Your task to perform on an android device: Open battery settings Image 0: 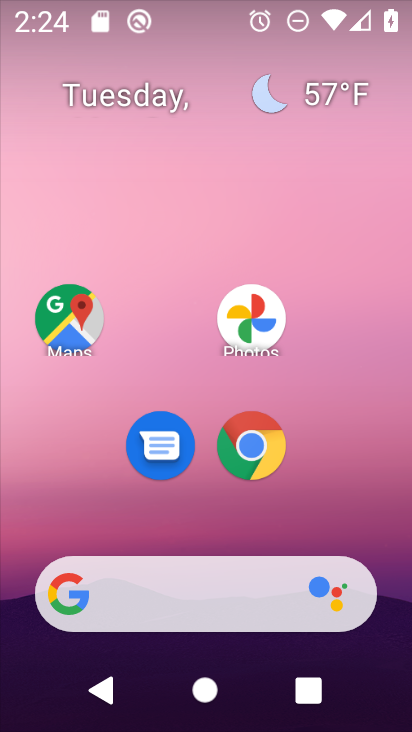
Step 0: drag from (385, 524) to (381, 240)
Your task to perform on an android device: Open battery settings Image 1: 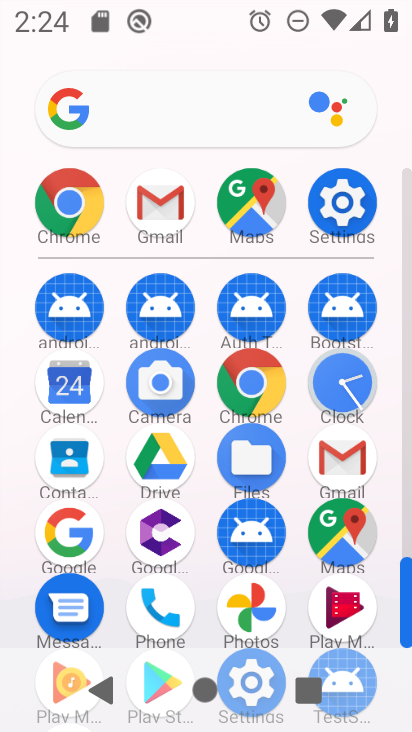
Step 1: click (353, 205)
Your task to perform on an android device: Open battery settings Image 2: 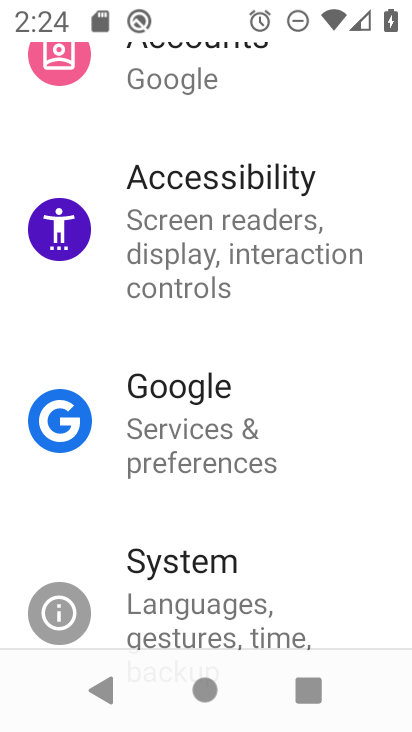
Step 2: drag from (368, 584) to (368, 394)
Your task to perform on an android device: Open battery settings Image 3: 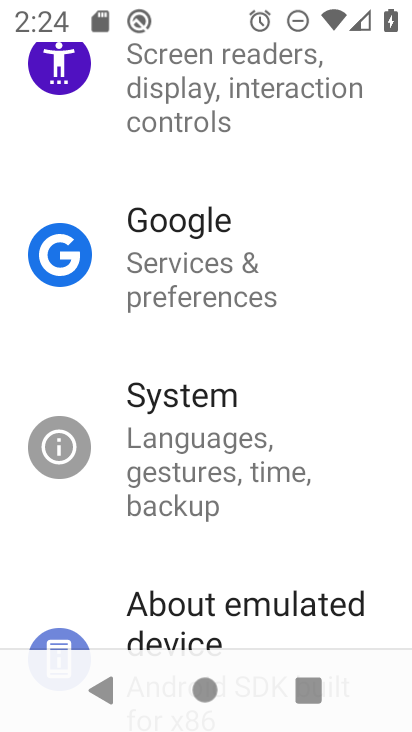
Step 3: drag from (359, 267) to (366, 448)
Your task to perform on an android device: Open battery settings Image 4: 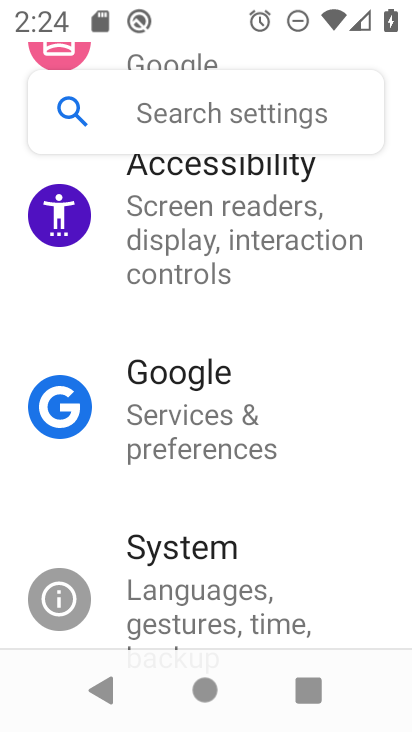
Step 4: drag from (382, 210) to (391, 377)
Your task to perform on an android device: Open battery settings Image 5: 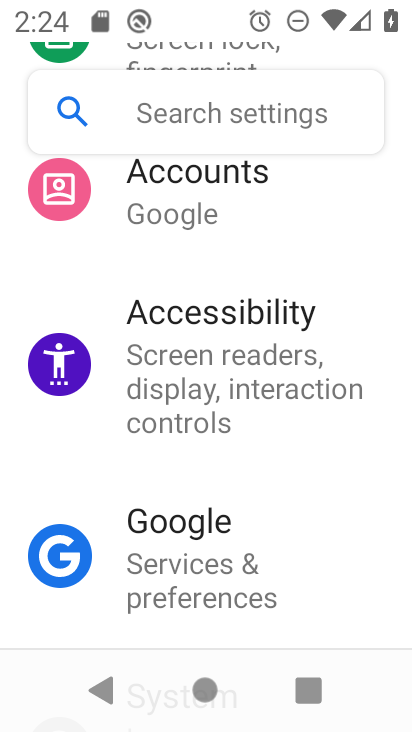
Step 5: drag from (375, 228) to (379, 417)
Your task to perform on an android device: Open battery settings Image 6: 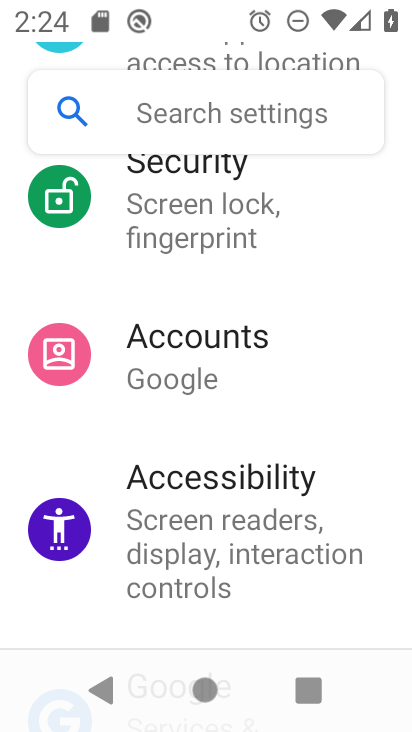
Step 6: drag from (357, 237) to (372, 419)
Your task to perform on an android device: Open battery settings Image 7: 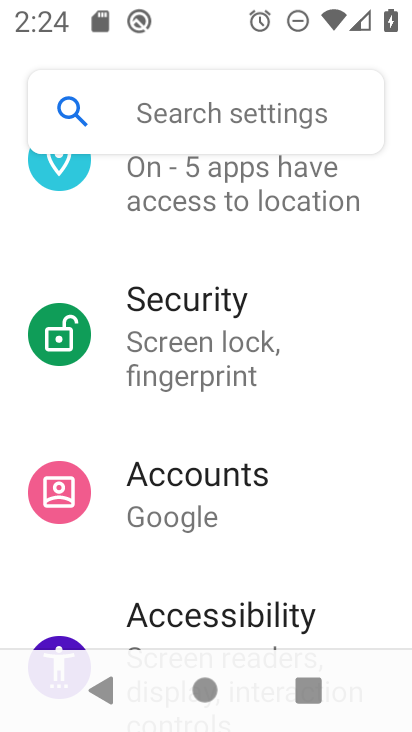
Step 7: drag from (379, 201) to (380, 383)
Your task to perform on an android device: Open battery settings Image 8: 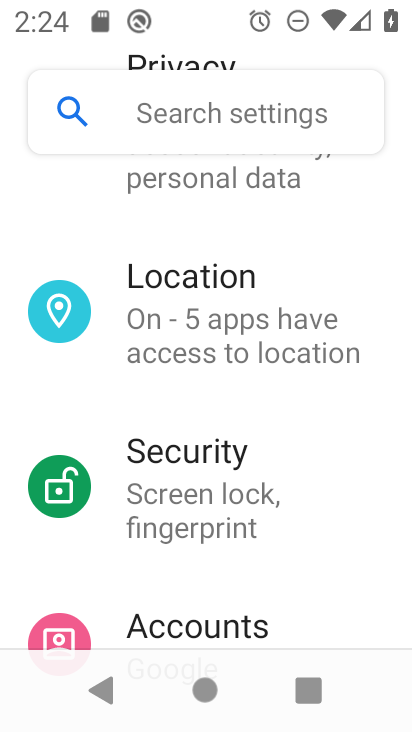
Step 8: drag from (369, 200) to (369, 358)
Your task to perform on an android device: Open battery settings Image 9: 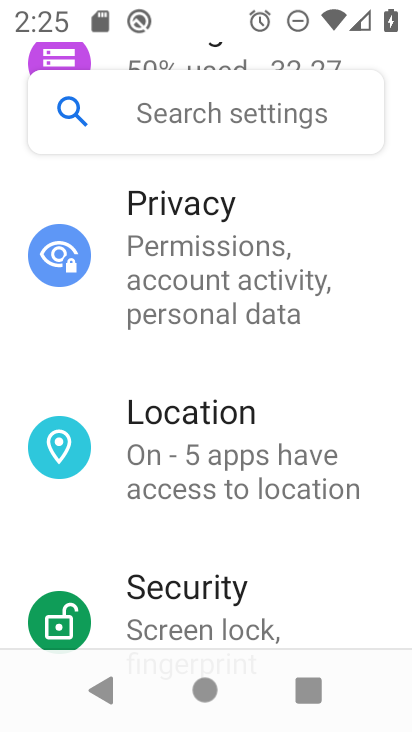
Step 9: drag from (366, 286) to (370, 387)
Your task to perform on an android device: Open battery settings Image 10: 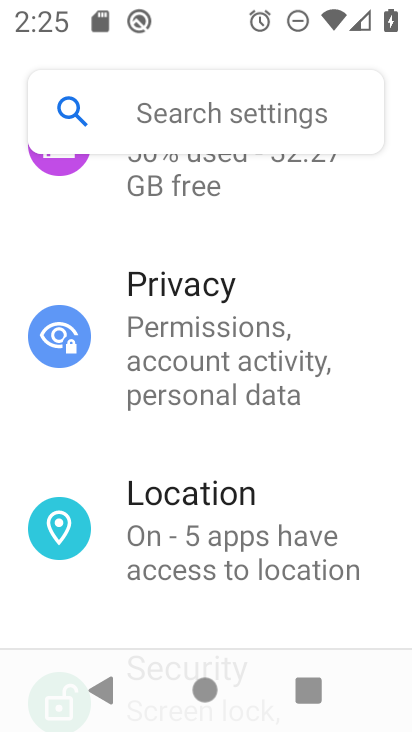
Step 10: drag from (365, 264) to (388, 524)
Your task to perform on an android device: Open battery settings Image 11: 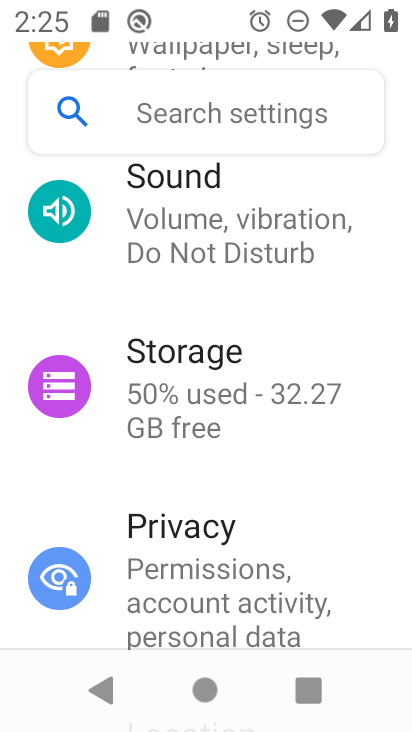
Step 11: drag from (382, 580) to (380, 441)
Your task to perform on an android device: Open battery settings Image 12: 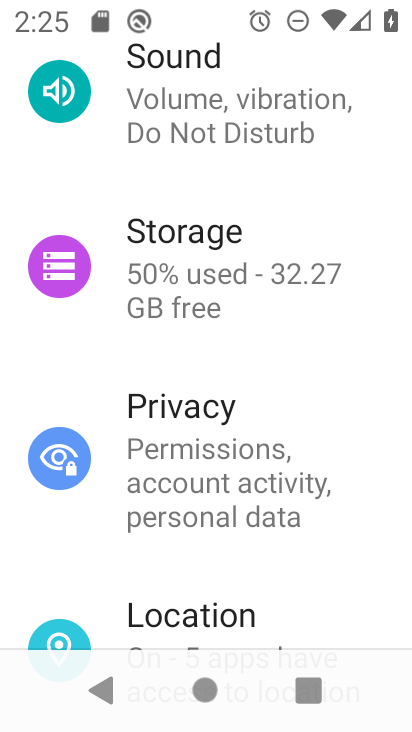
Step 12: drag from (360, 583) to (360, 404)
Your task to perform on an android device: Open battery settings Image 13: 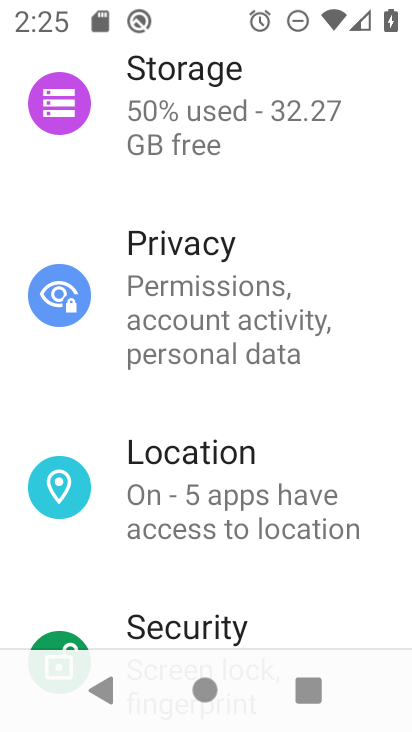
Step 13: drag from (372, 543) to (386, 414)
Your task to perform on an android device: Open battery settings Image 14: 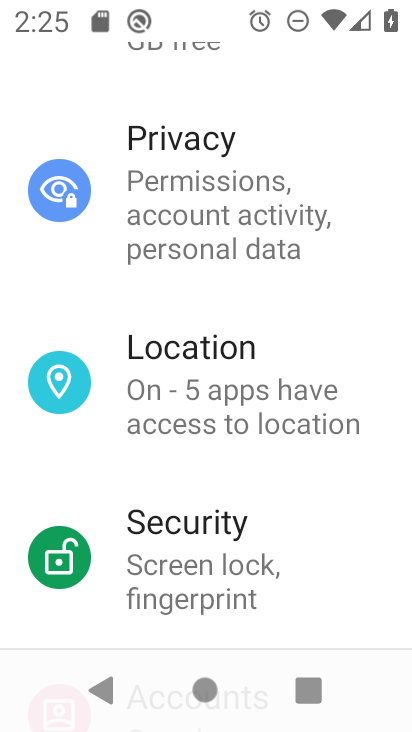
Step 14: drag from (384, 574) to (384, 411)
Your task to perform on an android device: Open battery settings Image 15: 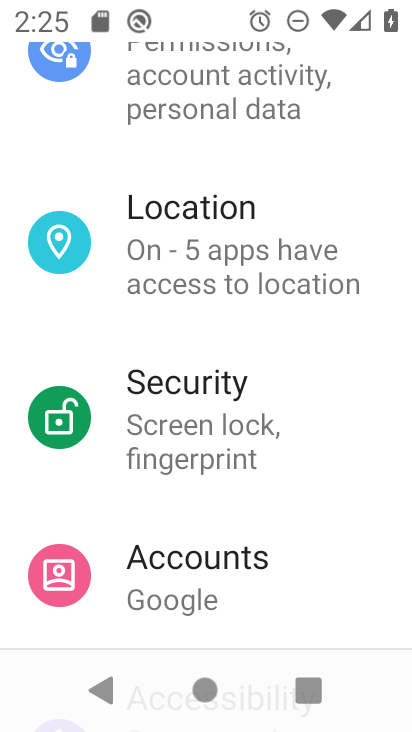
Step 15: drag from (347, 583) to (350, 447)
Your task to perform on an android device: Open battery settings Image 16: 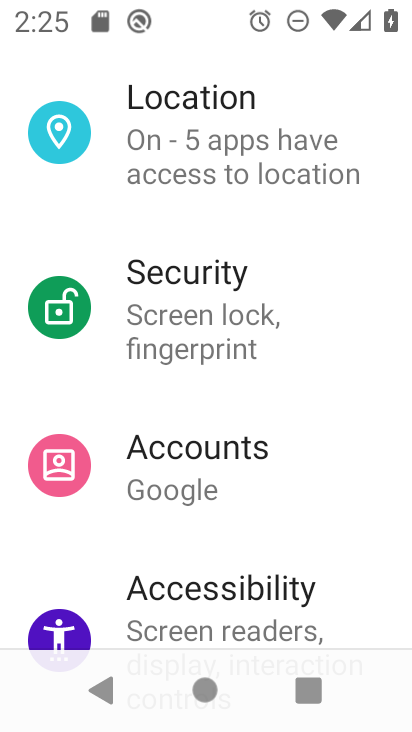
Step 16: drag from (358, 621) to (359, 433)
Your task to perform on an android device: Open battery settings Image 17: 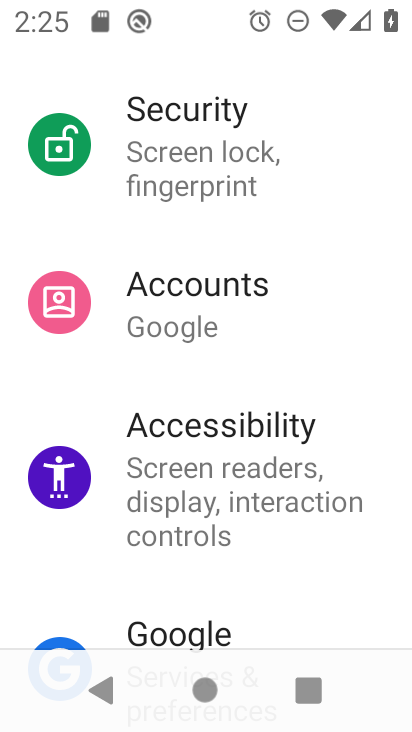
Step 17: drag from (345, 608) to (348, 436)
Your task to perform on an android device: Open battery settings Image 18: 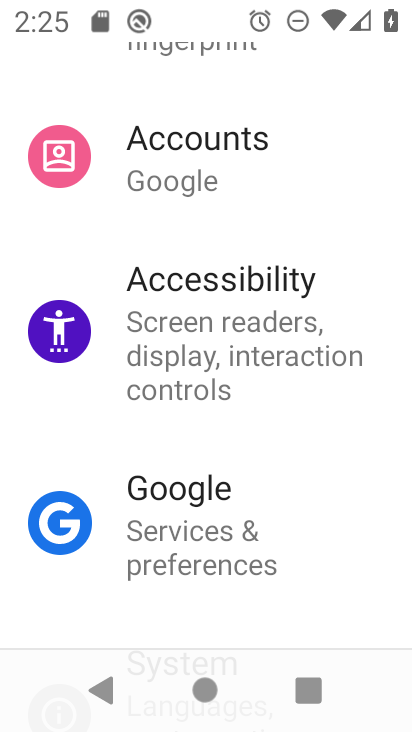
Step 18: drag from (342, 602) to (342, 412)
Your task to perform on an android device: Open battery settings Image 19: 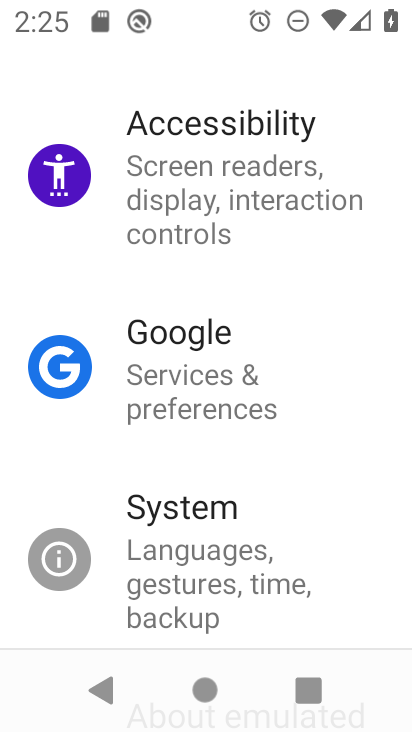
Step 19: drag from (347, 270) to (353, 412)
Your task to perform on an android device: Open battery settings Image 20: 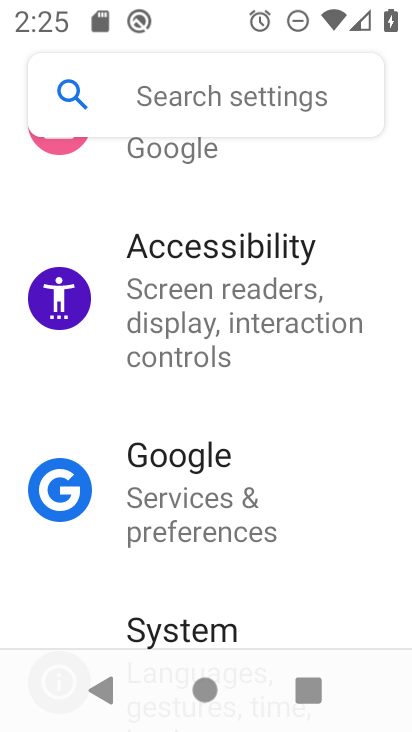
Step 20: drag from (347, 229) to (352, 406)
Your task to perform on an android device: Open battery settings Image 21: 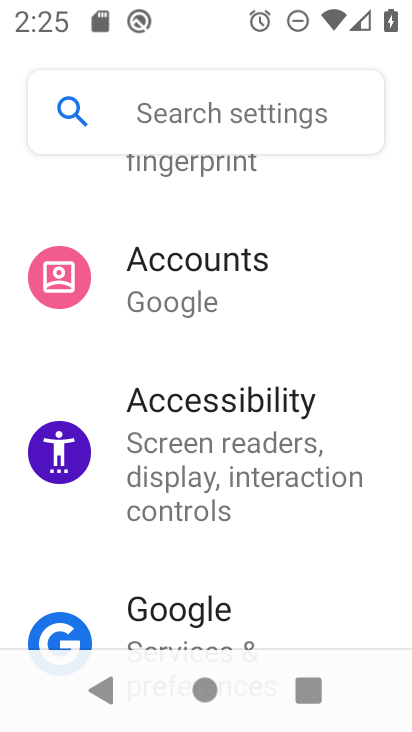
Step 21: drag from (341, 241) to (341, 416)
Your task to perform on an android device: Open battery settings Image 22: 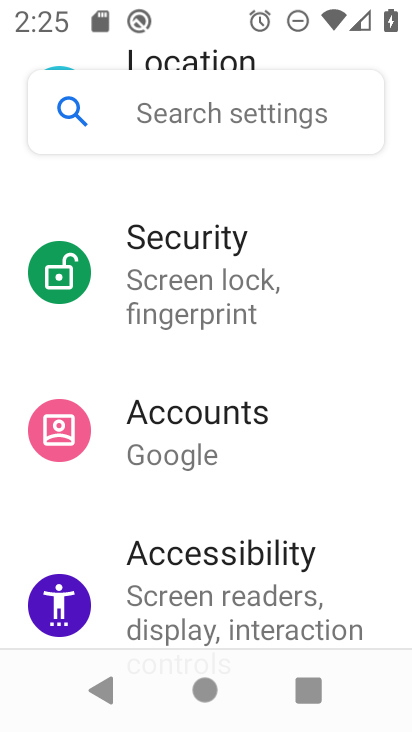
Step 22: drag from (342, 247) to (349, 388)
Your task to perform on an android device: Open battery settings Image 23: 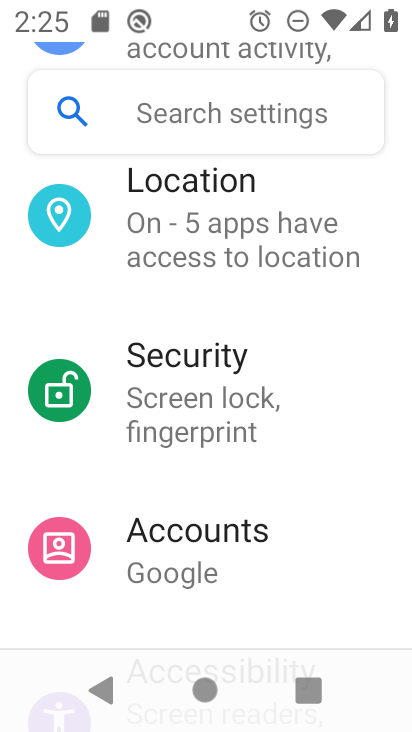
Step 23: drag from (358, 204) to (363, 328)
Your task to perform on an android device: Open battery settings Image 24: 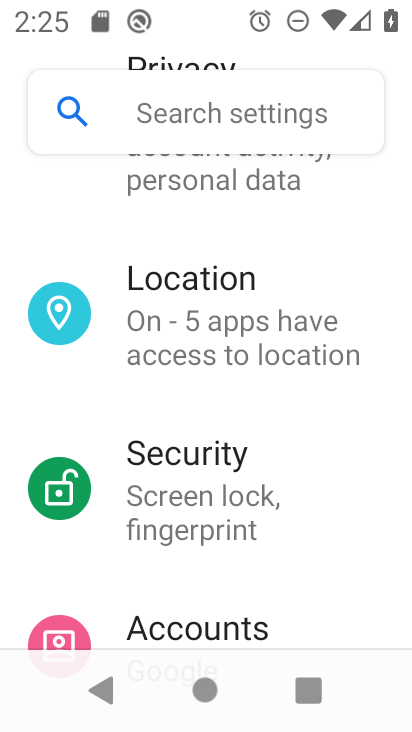
Step 24: drag from (364, 202) to (364, 375)
Your task to perform on an android device: Open battery settings Image 25: 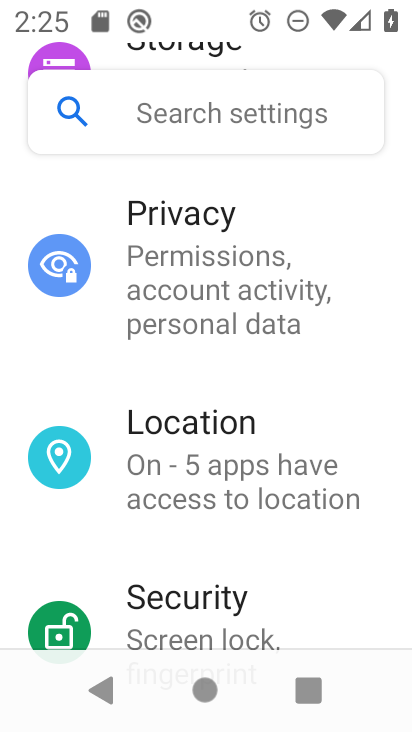
Step 25: drag from (354, 222) to (356, 401)
Your task to perform on an android device: Open battery settings Image 26: 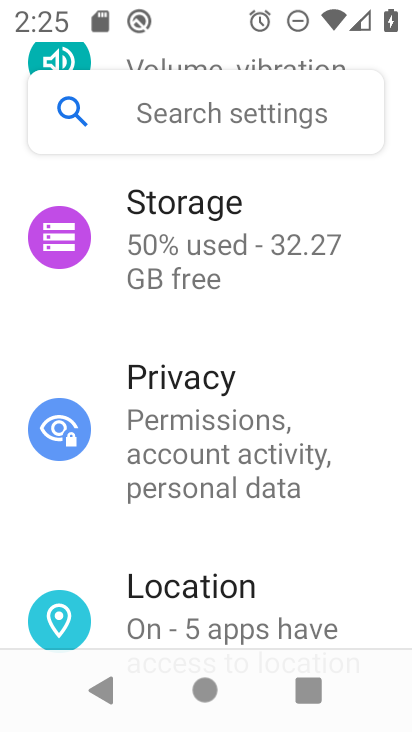
Step 26: drag from (347, 183) to (357, 373)
Your task to perform on an android device: Open battery settings Image 27: 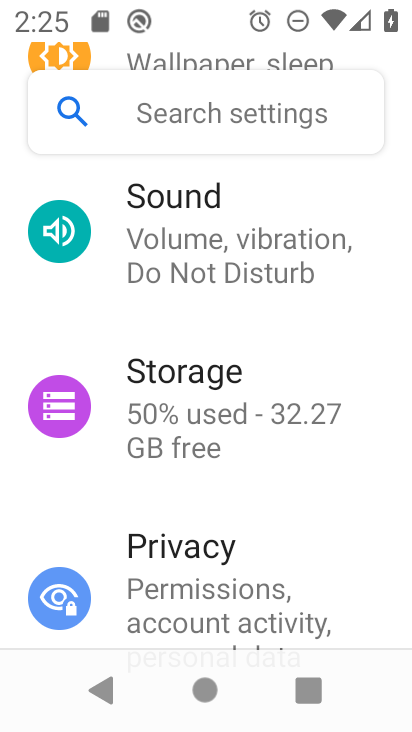
Step 27: drag from (359, 194) to (362, 341)
Your task to perform on an android device: Open battery settings Image 28: 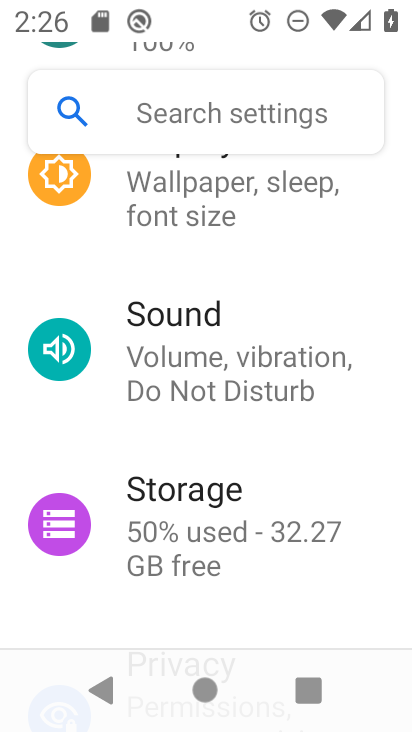
Step 28: drag from (368, 178) to (370, 334)
Your task to perform on an android device: Open battery settings Image 29: 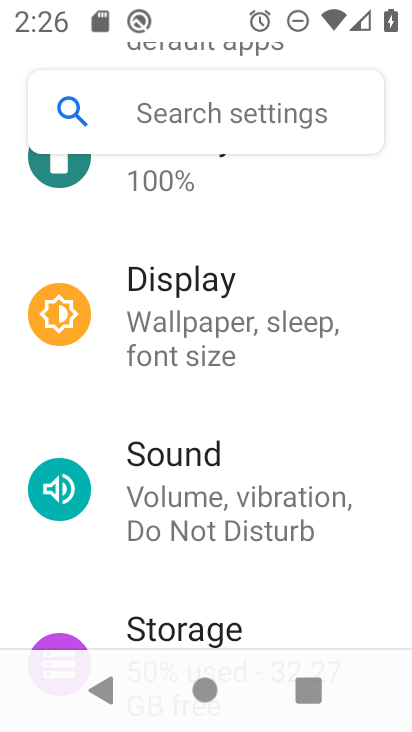
Step 29: drag from (375, 213) to (374, 350)
Your task to perform on an android device: Open battery settings Image 30: 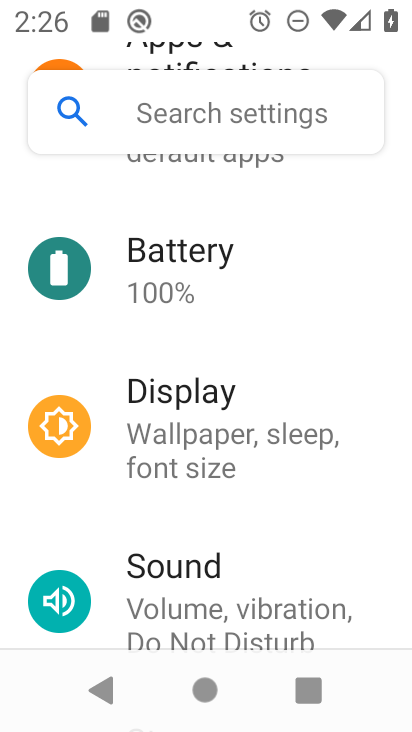
Step 30: click (197, 279)
Your task to perform on an android device: Open battery settings Image 31: 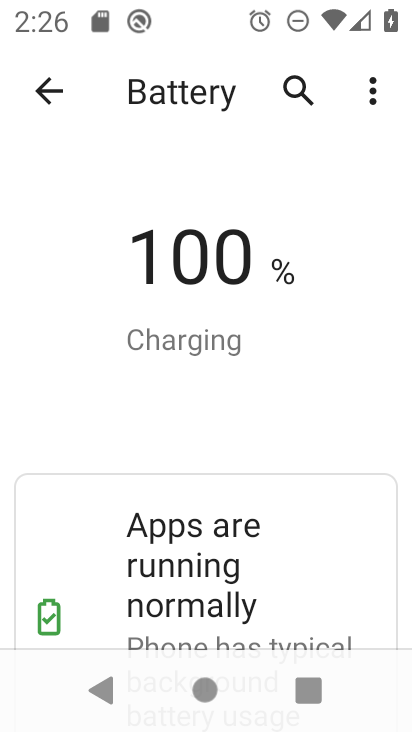
Step 31: task complete